Your task to perform on an android device: toggle translation in the chrome app Image 0: 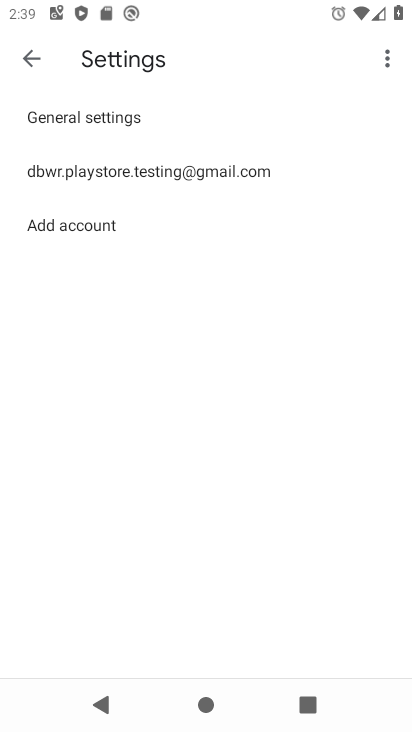
Step 0: press home button
Your task to perform on an android device: toggle translation in the chrome app Image 1: 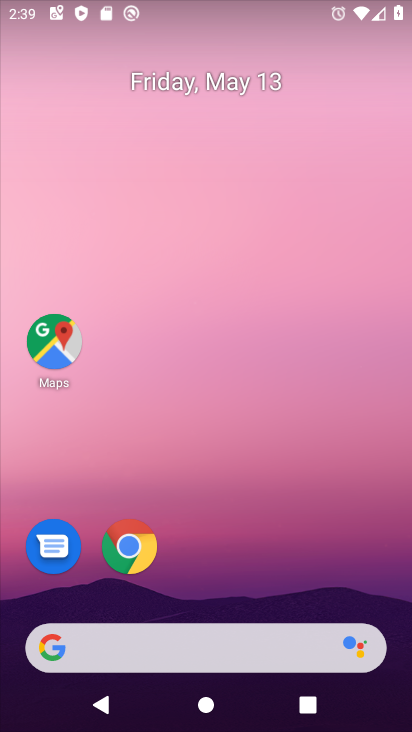
Step 1: click (144, 556)
Your task to perform on an android device: toggle translation in the chrome app Image 2: 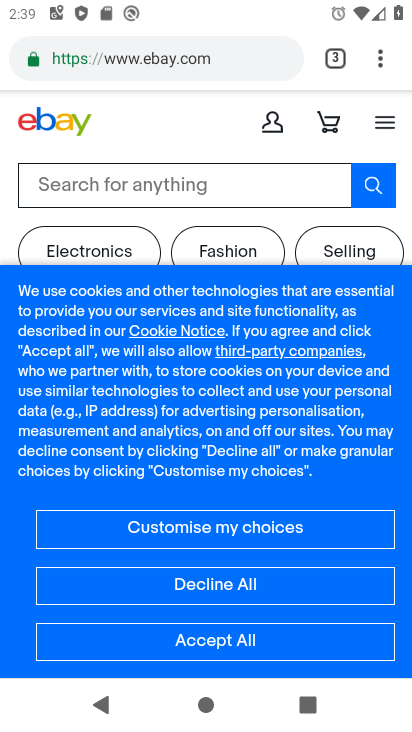
Step 2: drag from (381, 58) to (216, 582)
Your task to perform on an android device: toggle translation in the chrome app Image 3: 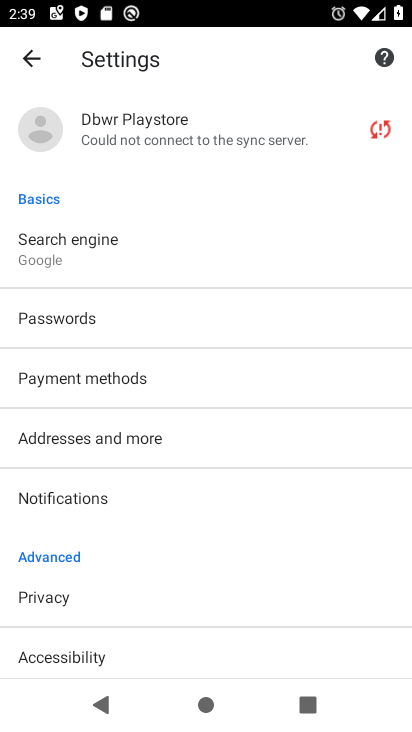
Step 3: drag from (242, 562) to (249, 259)
Your task to perform on an android device: toggle translation in the chrome app Image 4: 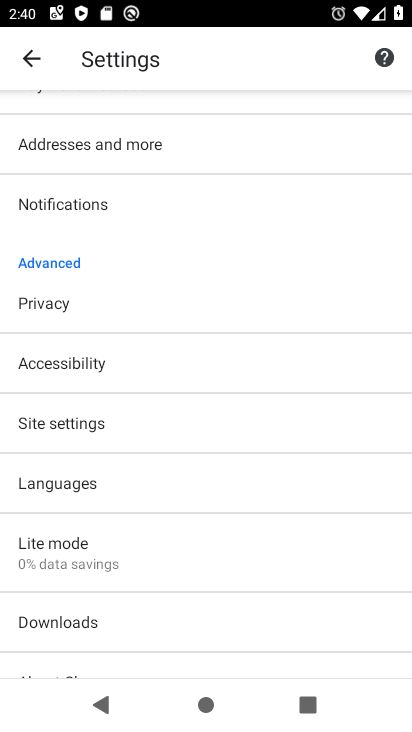
Step 4: click (48, 491)
Your task to perform on an android device: toggle translation in the chrome app Image 5: 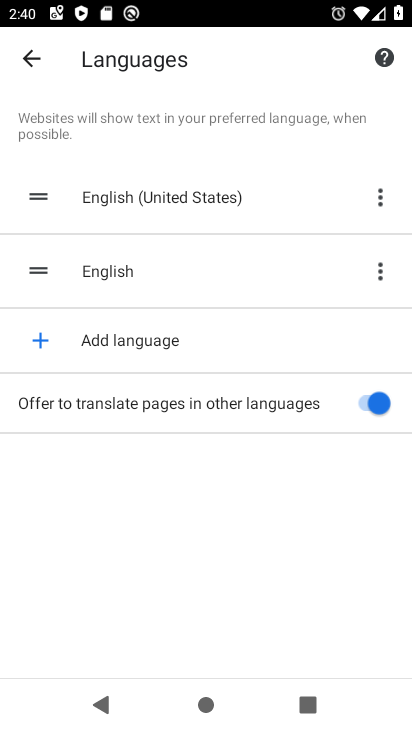
Step 5: click (388, 388)
Your task to perform on an android device: toggle translation in the chrome app Image 6: 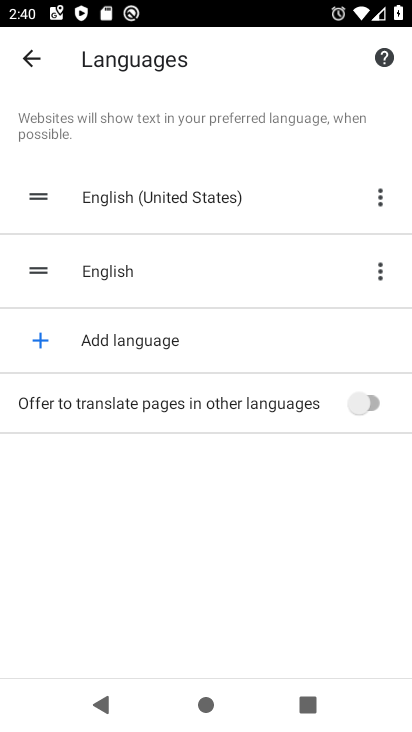
Step 6: task complete